Your task to perform on an android device: toggle javascript in the chrome app Image 0: 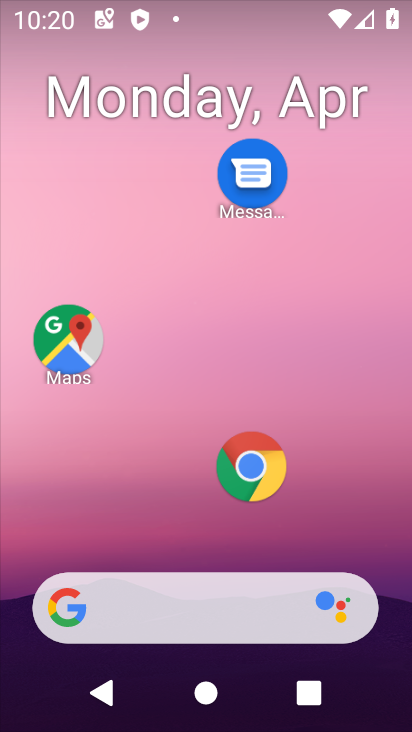
Step 0: click (241, 463)
Your task to perform on an android device: toggle javascript in the chrome app Image 1: 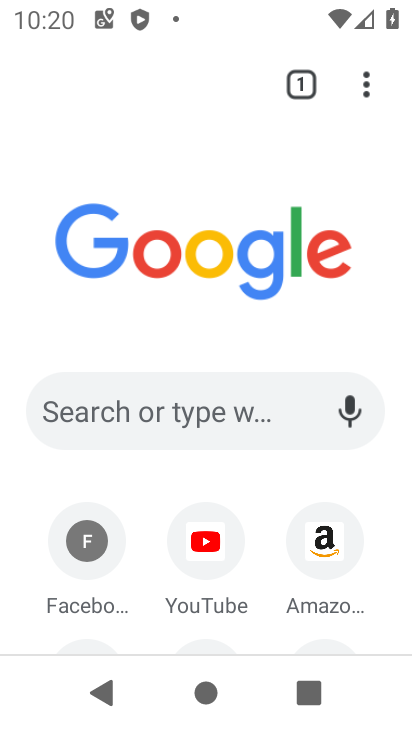
Step 1: click (366, 81)
Your task to perform on an android device: toggle javascript in the chrome app Image 2: 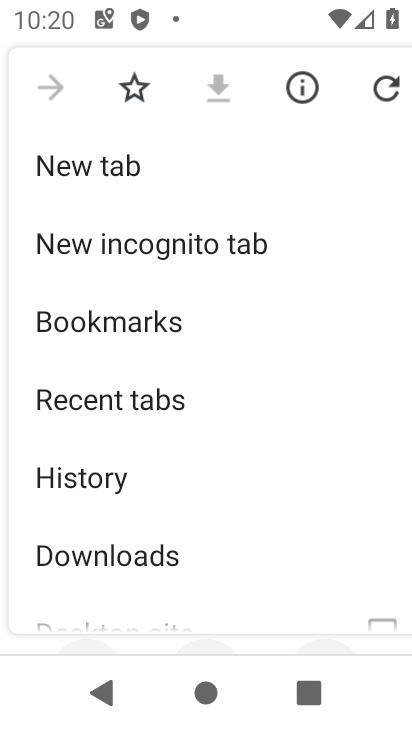
Step 2: drag from (144, 510) to (223, 153)
Your task to perform on an android device: toggle javascript in the chrome app Image 3: 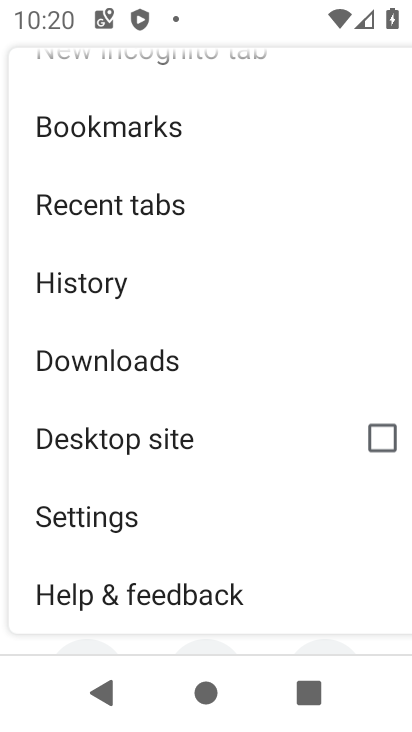
Step 3: click (118, 517)
Your task to perform on an android device: toggle javascript in the chrome app Image 4: 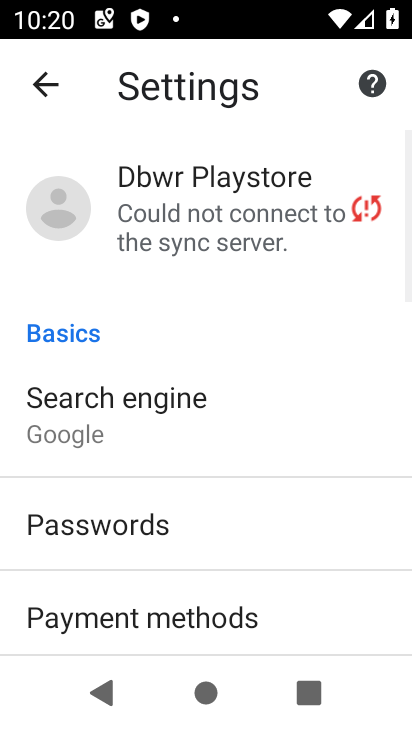
Step 4: drag from (104, 483) to (193, 81)
Your task to perform on an android device: toggle javascript in the chrome app Image 5: 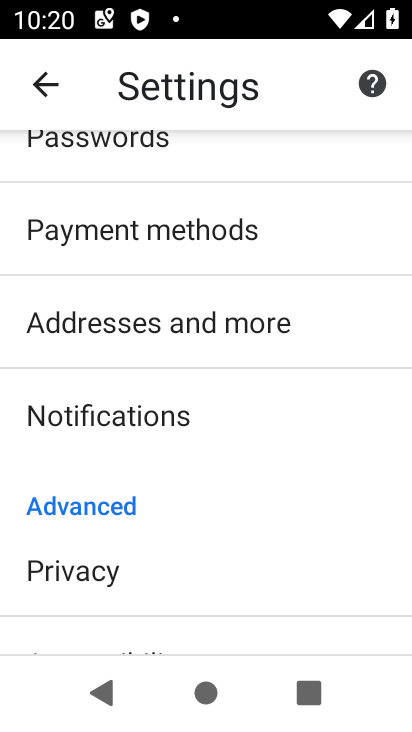
Step 5: drag from (183, 514) to (191, 185)
Your task to perform on an android device: toggle javascript in the chrome app Image 6: 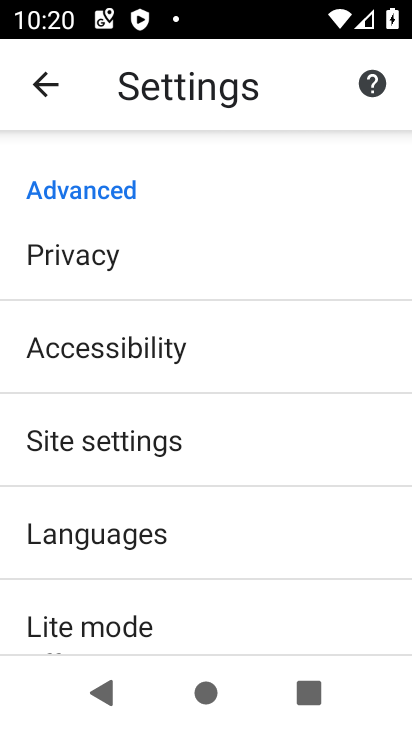
Step 6: click (143, 434)
Your task to perform on an android device: toggle javascript in the chrome app Image 7: 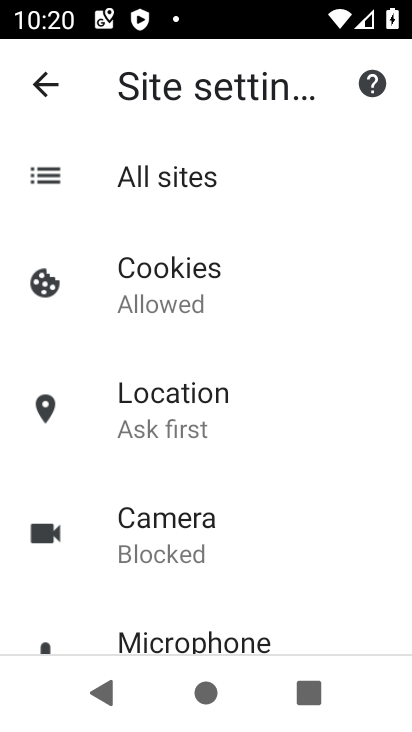
Step 7: drag from (193, 533) to (237, 155)
Your task to perform on an android device: toggle javascript in the chrome app Image 8: 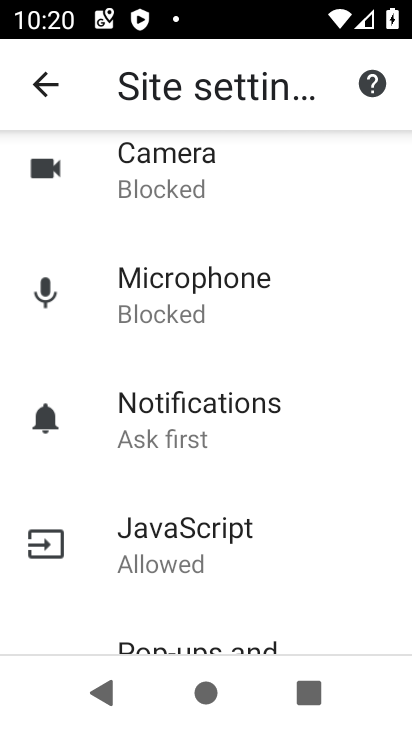
Step 8: click (232, 531)
Your task to perform on an android device: toggle javascript in the chrome app Image 9: 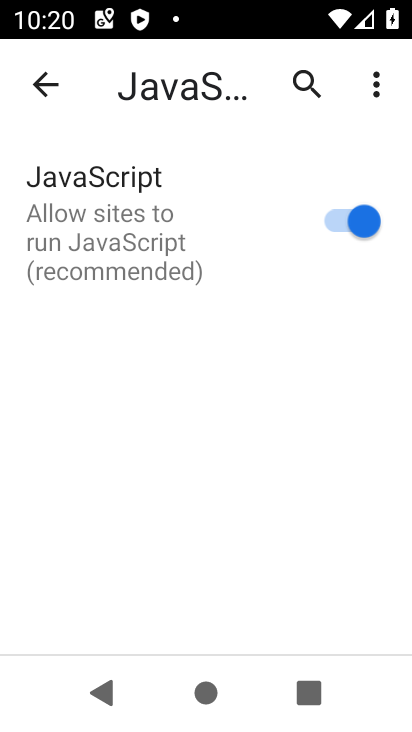
Step 9: task complete